Your task to perform on an android device: open the mobile data screen to see how much data has been used Image 0: 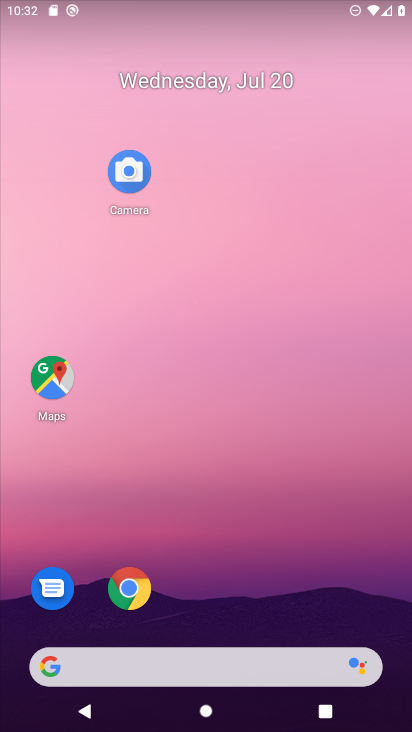
Step 0: press home button
Your task to perform on an android device: open the mobile data screen to see how much data has been used Image 1: 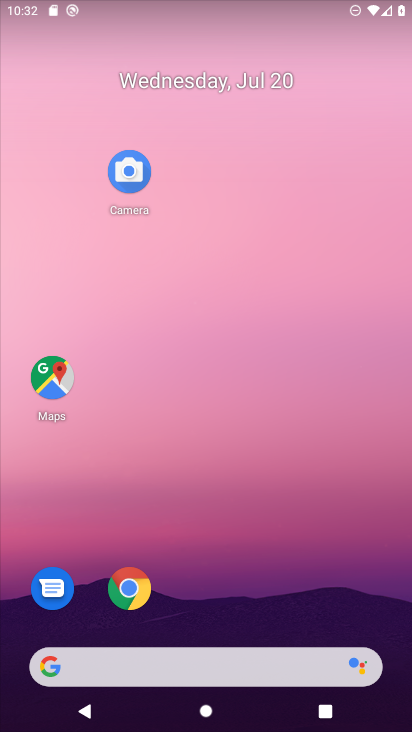
Step 1: drag from (242, 586) to (250, 129)
Your task to perform on an android device: open the mobile data screen to see how much data has been used Image 2: 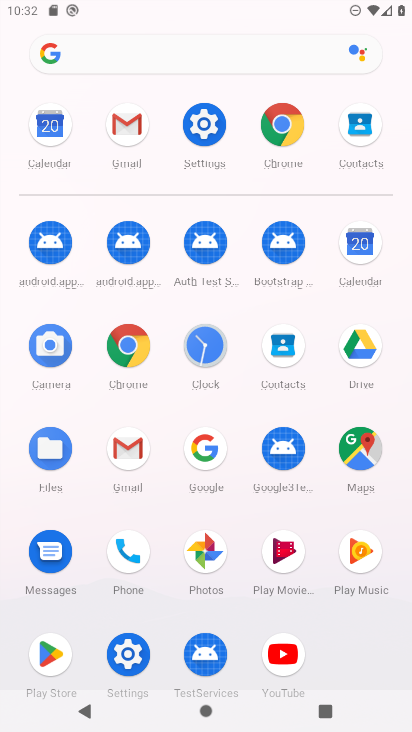
Step 2: click (197, 121)
Your task to perform on an android device: open the mobile data screen to see how much data has been used Image 3: 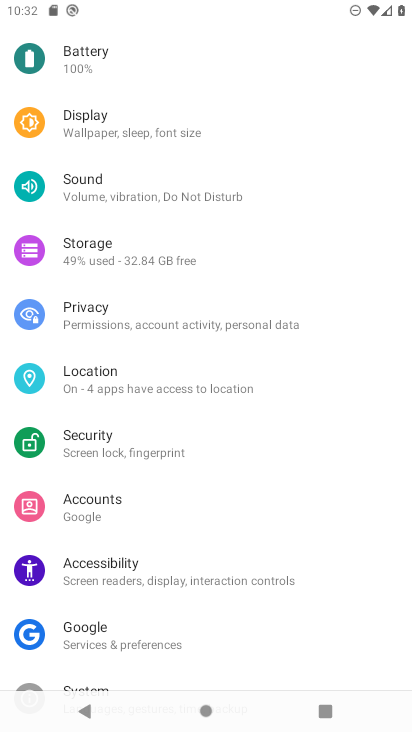
Step 3: drag from (134, 82) to (136, 650)
Your task to perform on an android device: open the mobile data screen to see how much data has been used Image 4: 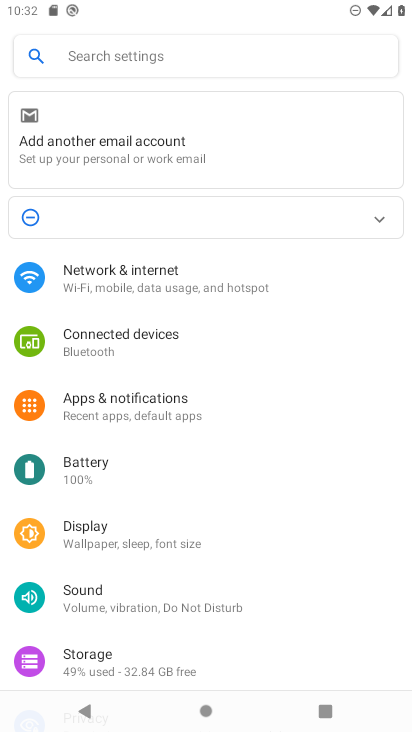
Step 4: click (117, 282)
Your task to perform on an android device: open the mobile data screen to see how much data has been used Image 5: 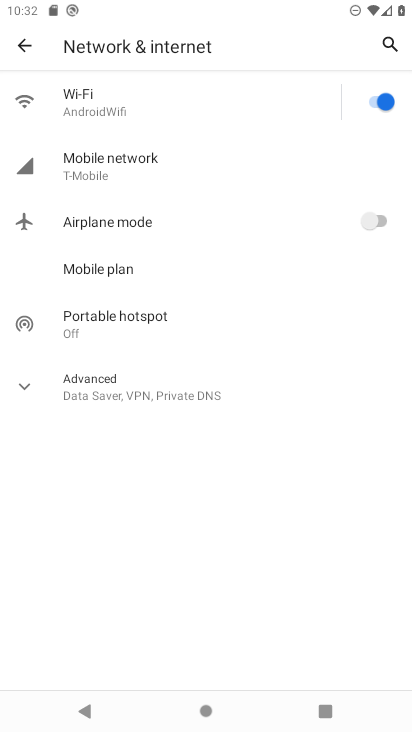
Step 5: click (93, 155)
Your task to perform on an android device: open the mobile data screen to see how much data has been used Image 6: 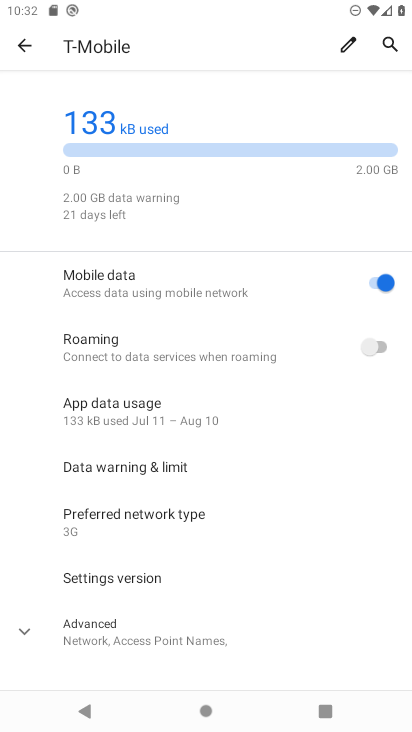
Step 6: task complete